Your task to perform on an android device: What's the weather going to be tomorrow? Image 0: 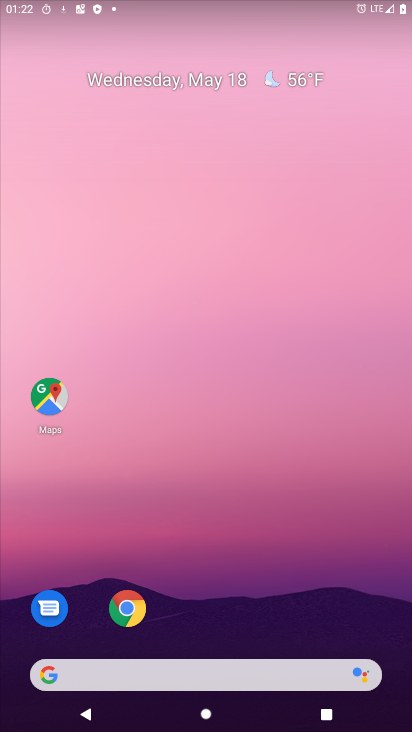
Step 0: drag from (264, 686) to (285, 159)
Your task to perform on an android device: What's the weather going to be tomorrow? Image 1: 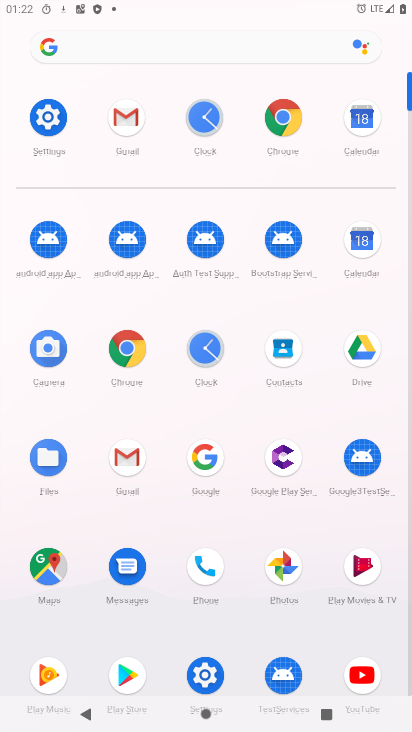
Step 1: click (120, 36)
Your task to perform on an android device: What's the weather going to be tomorrow? Image 2: 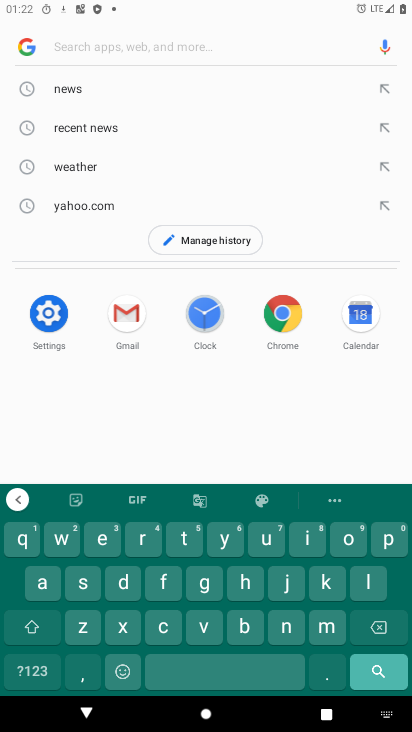
Step 2: click (74, 166)
Your task to perform on an android device: What's the weather going to be tomorrow? Image 3: 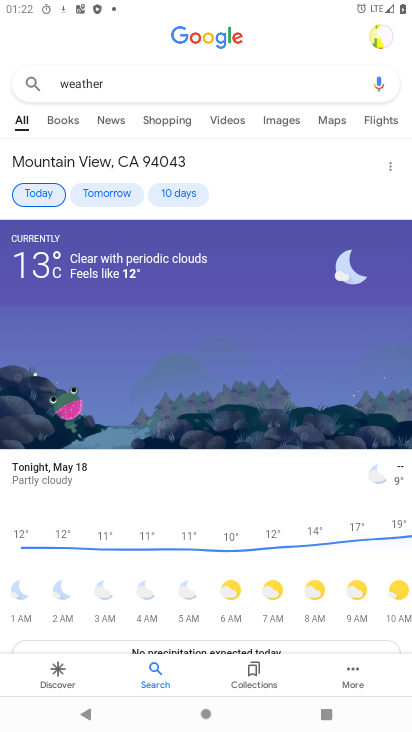
Step 3: click (106, 181)
Your task to perform on an android device: What's the weather going to be tomorrow? Image 4: 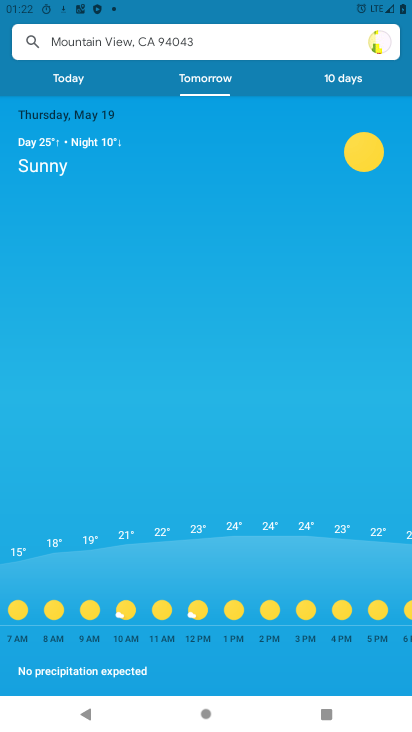
Step 4: task complete